Your task to perform on an android device: turn off picture-in-picture Image 0: 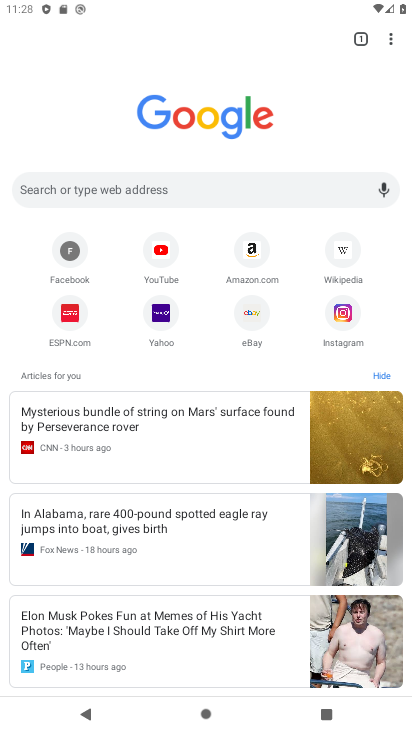
Step 0: task impossible